Your task to perform on an android device: delete a single message in the gmail app Image 0: 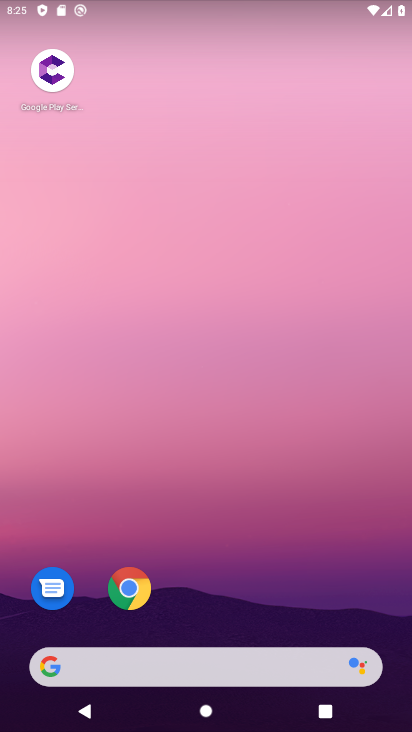
Step 0: drag from (196, 621) to (158, 84)
Your task to perform on an android device: delete a single message in the gmail app Image 1: 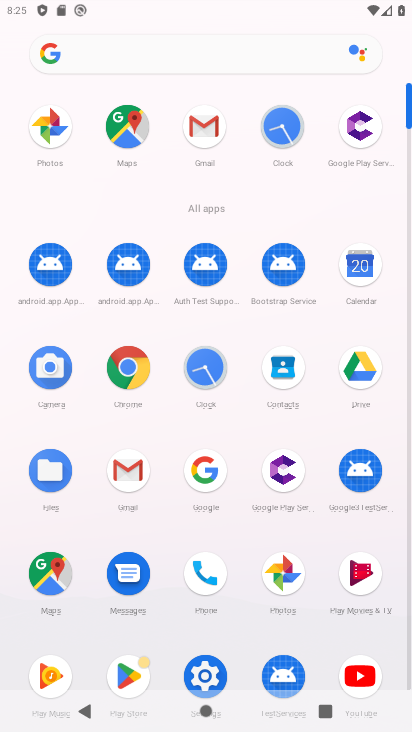
Step 1: click (116, 476)
Your task to perform on an android device: delete a single message in the gmail app Image 2: 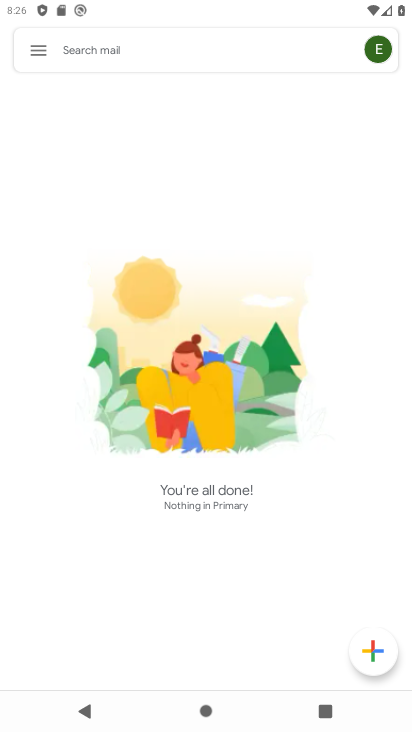
Step 2: task complete